Your task to perform on an android device: see tabs open on other devices in the chrome app Image 0: 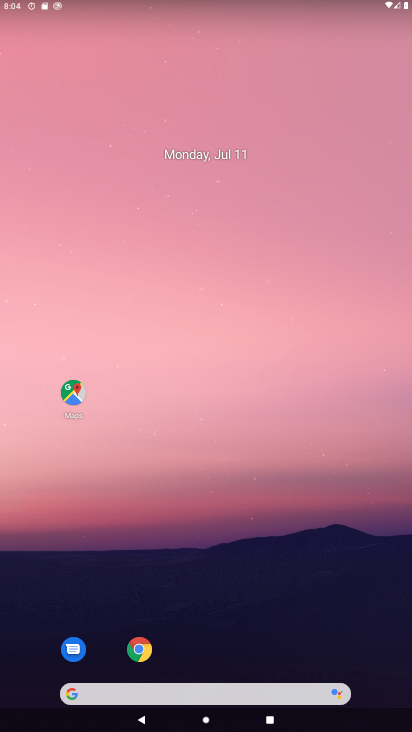
Step 0: click (140, 644)
Your task to perform on an android device: see tabs open on other devices in the chrome app Image 1: 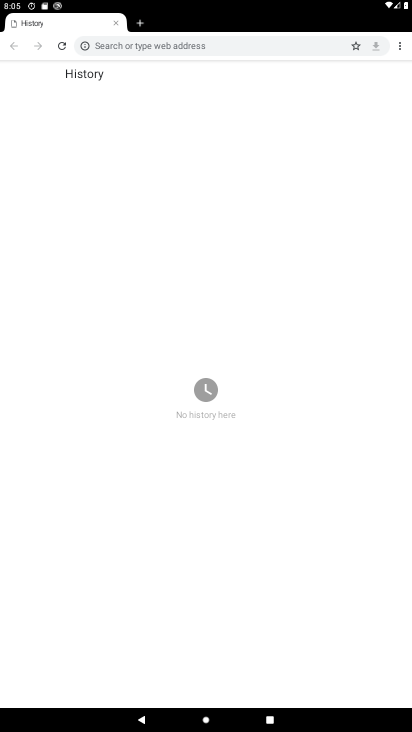
Step 1: click (396, 50)
Your task to perform on an android device: see tabs open on other devices in the chrome app Image 2: 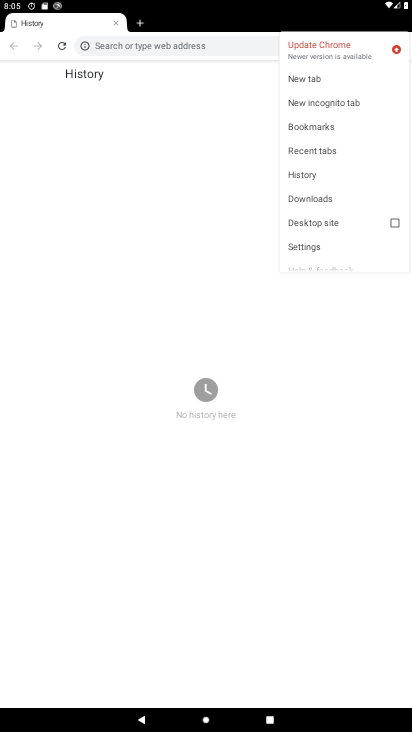
Step 2: click (317, 148)
Your task to perform on an android device: see tabs open on other devices in the chrome app Image 3: 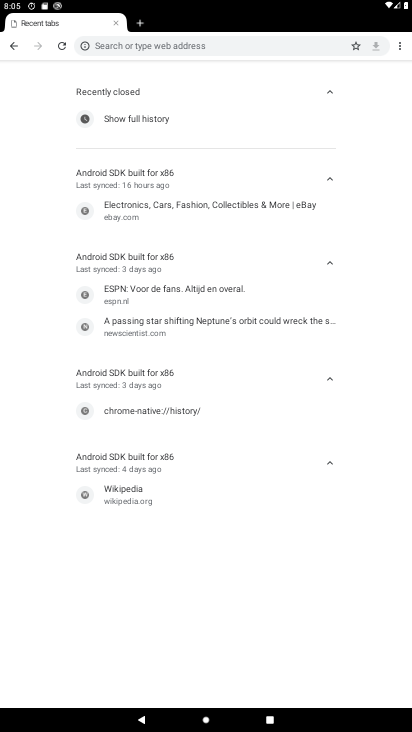
Step 3: task complete